Your task to perform on an android device: add a contact Image 0: 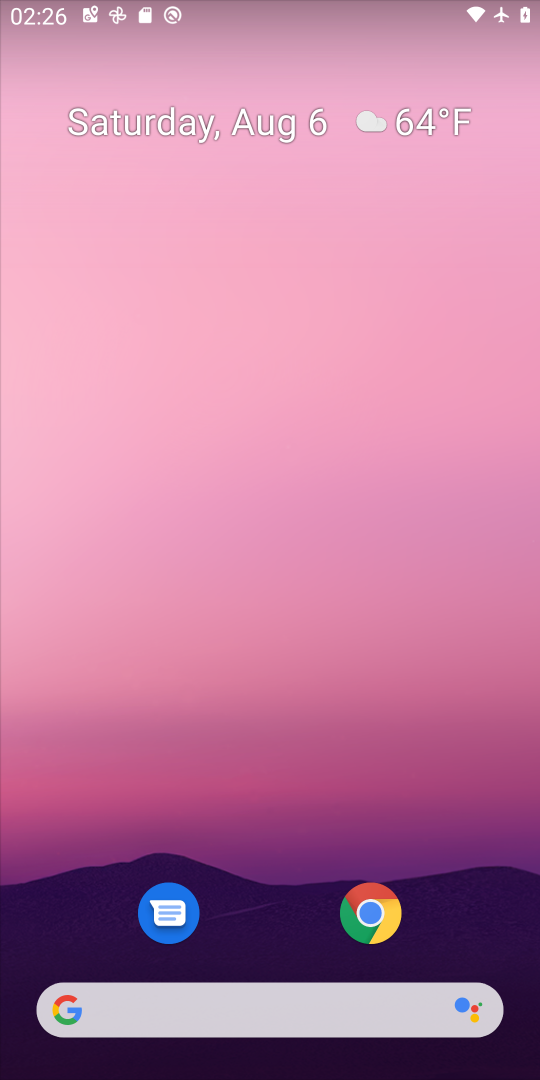
Step 0: press home button
Your task to perform on an android device: add a contact Image 1: 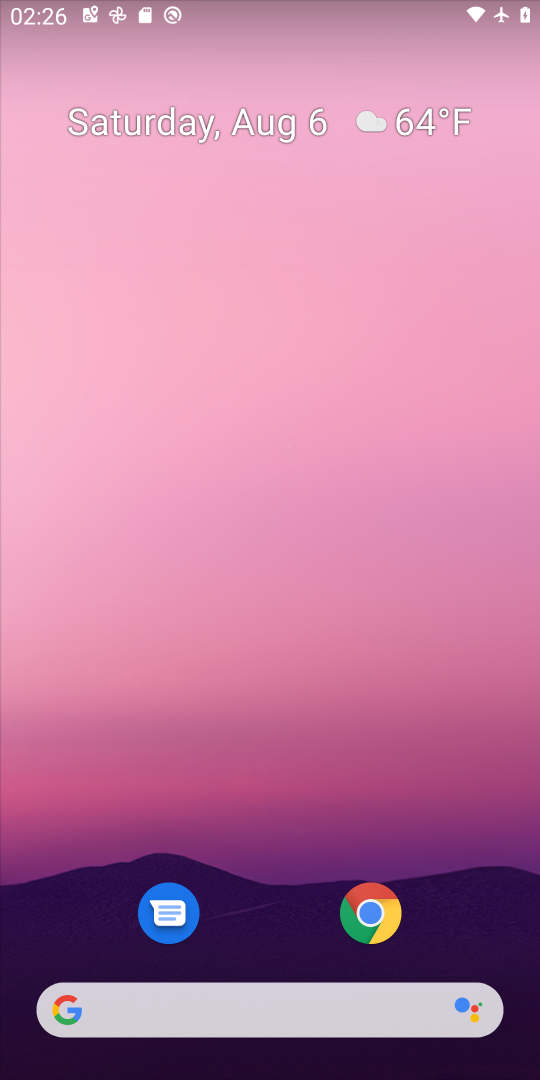
Step 1: drag from (459, 856) to (497, 342)
Your task to perform on an android device: add a contact Image 2: 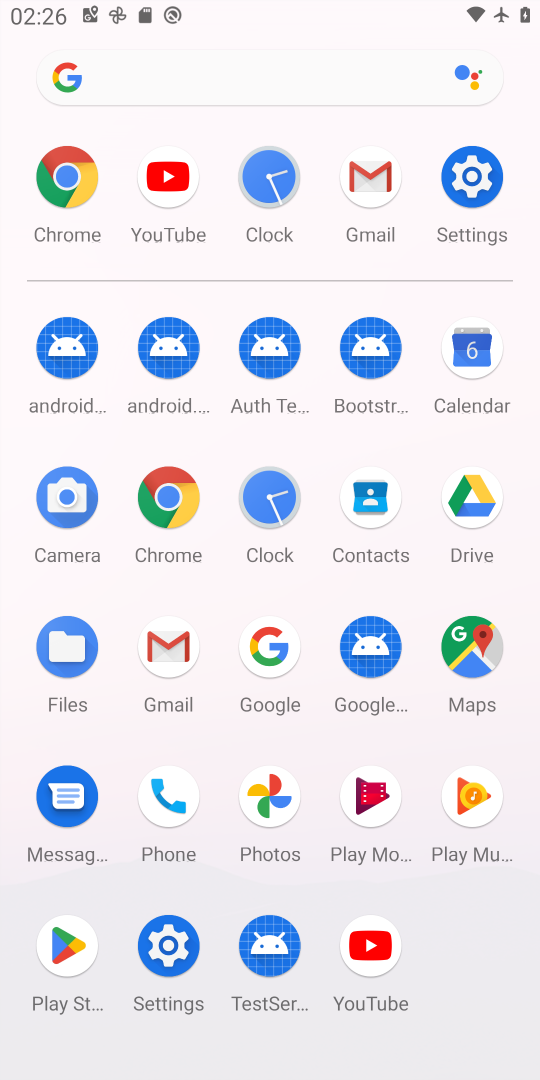
Step 2: click (371, 506)
Your task to perform on an android device: add a contact Image 3: 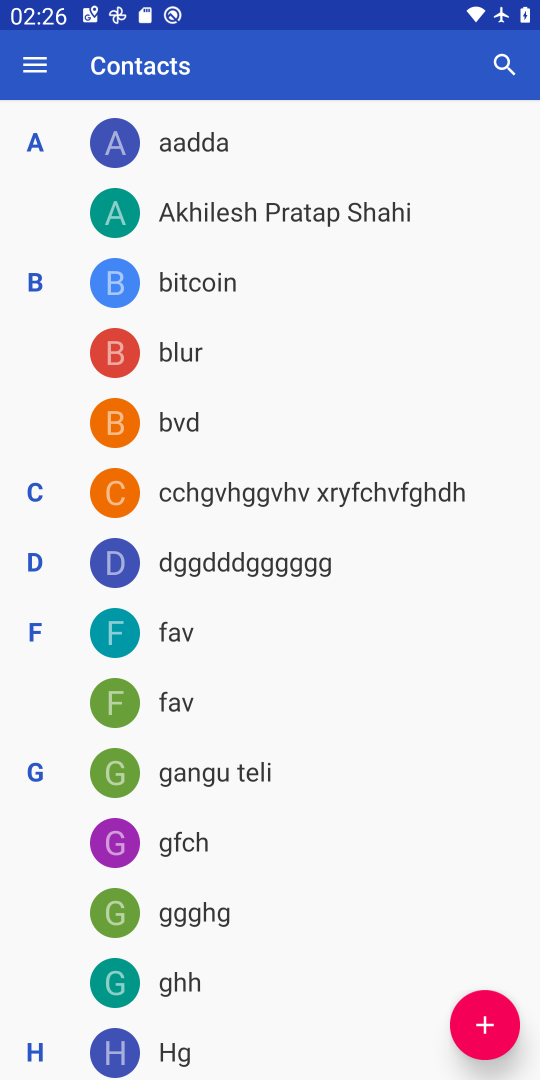
Step 3: click (479, 1026)
Your task to perform on an android device: add a contact Image 4: 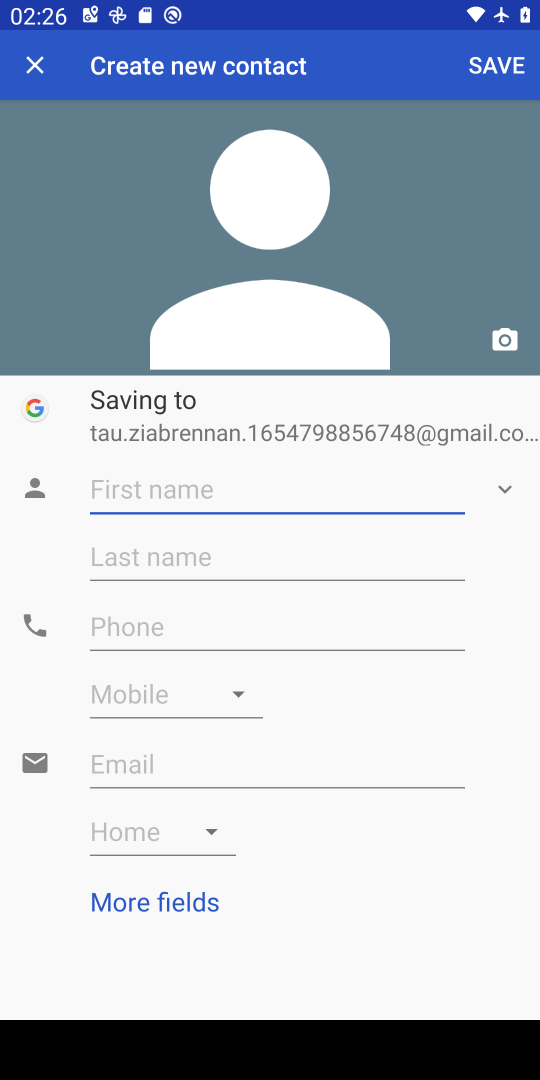
Step 4: click (275, 495)
Your task to perform on an android device: add a contact Image 5: 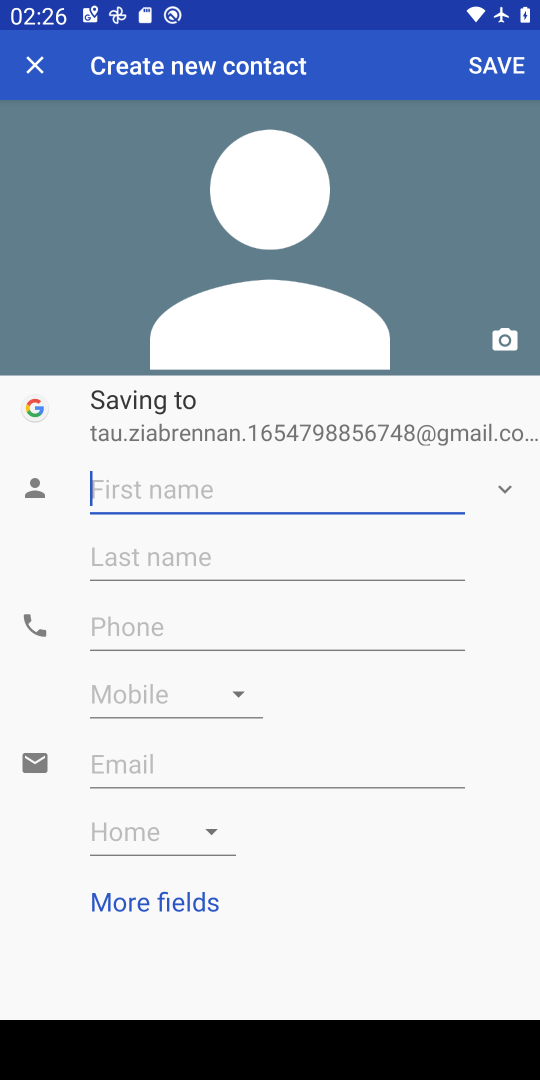
Step 5: type "kk"
Your task to perform on an android device: add a contact Image 6: 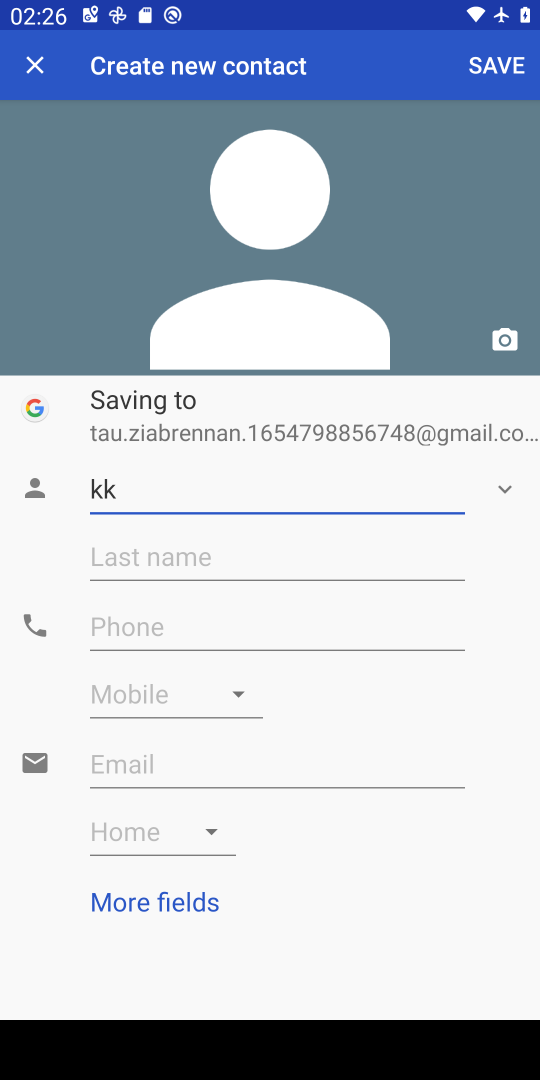
Step 6: click (390, 616)
Your task to perform on an android device: add a contact Image 7: 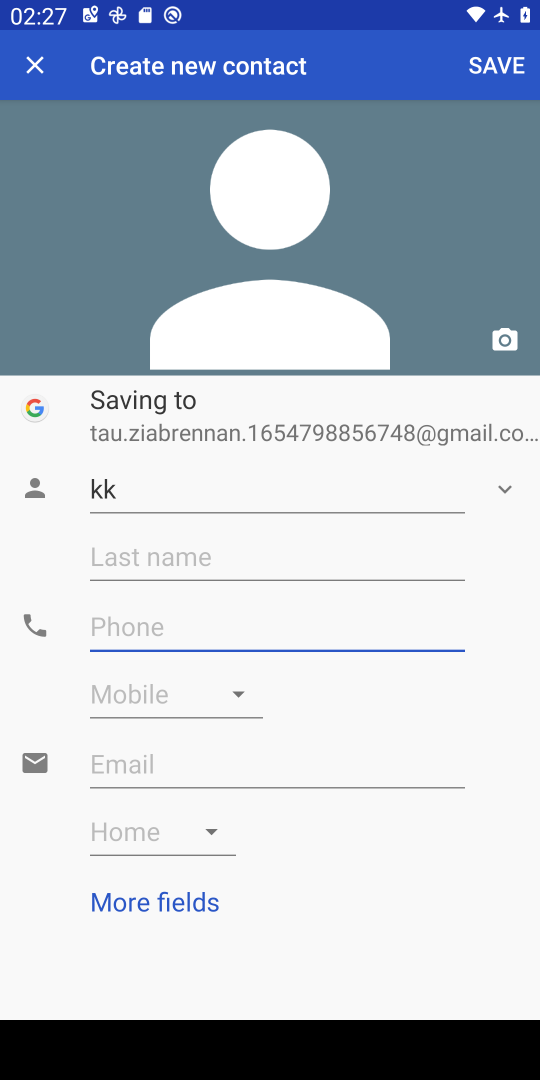
Step 7: type "123456789"
Your task to perform on an android device: add a contact Image 8: 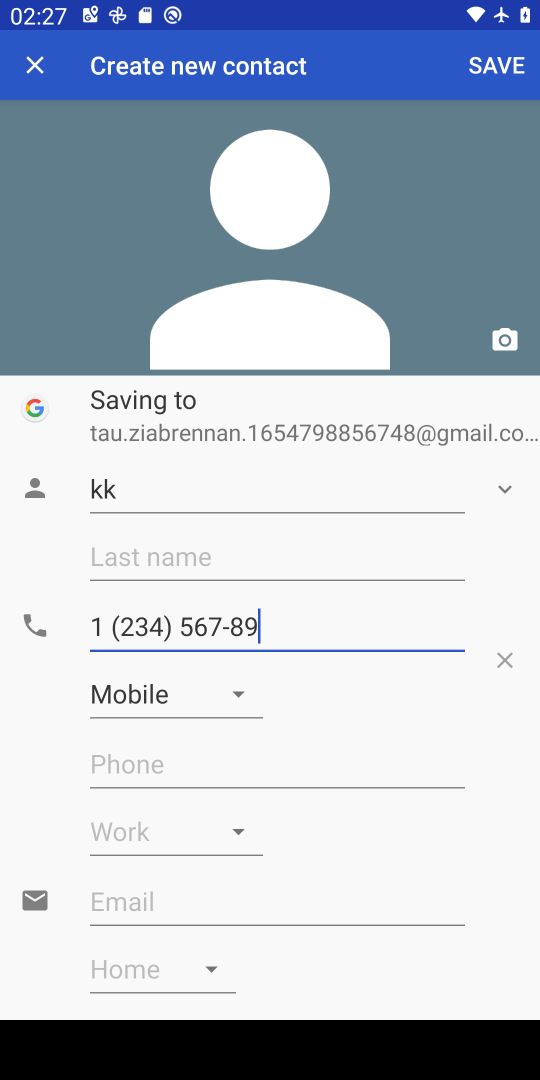
Step 8: click (507, 68)
Your task to perform on an android device: add a contact Image 9: 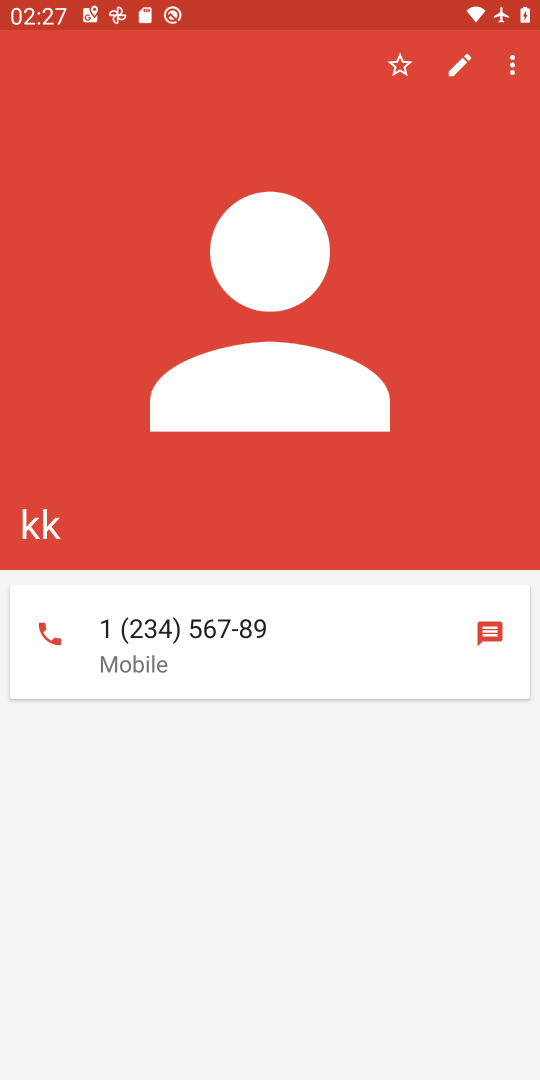
Step 9: task complete